Your task to perform on an android device: Open location settings Image 0: 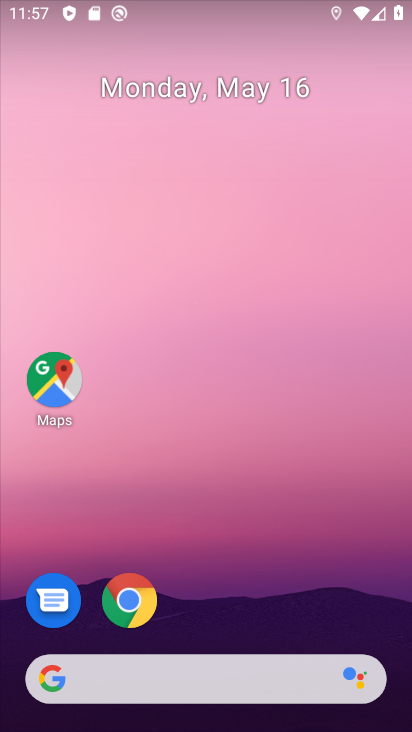
Step 0: drag from (240, 636) to (255, 200)
Your task to perform on an android device: Open location settings Image 1: 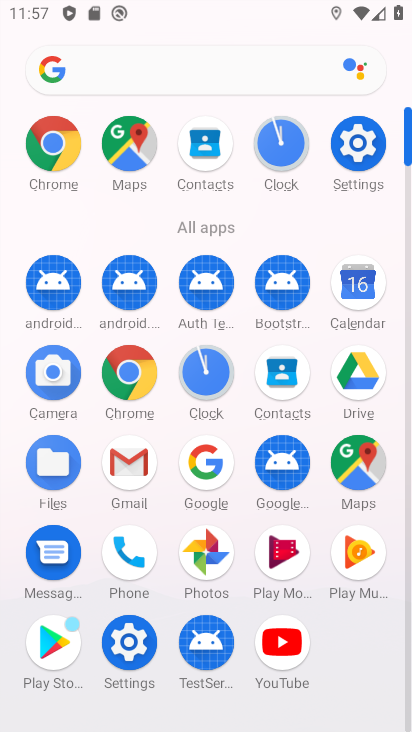
Step 1: click (364, 166)
Your task to perform on an android device: Open location settings Image 2: 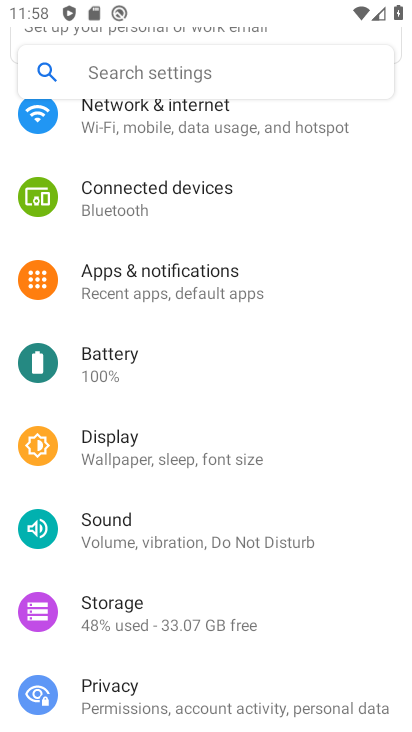
Step 2: drag from (298, 628) to (272, 201)
Your task to perform on an android device: Open location settings Image 3: 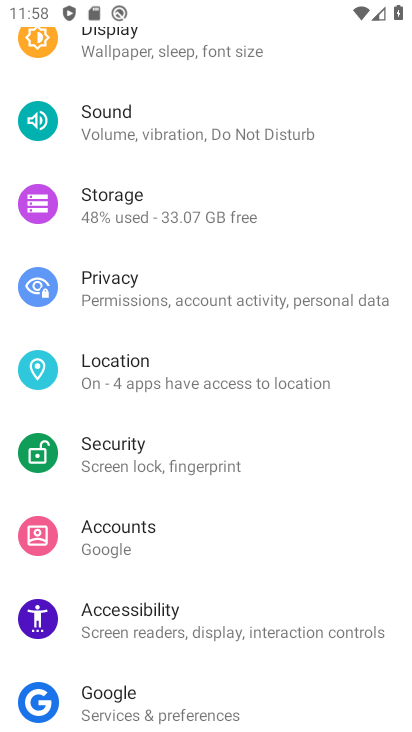
Step 3: drag from (291, 620) to (297, 448)
Your task to perform on an android device: Open location settings Image 4: 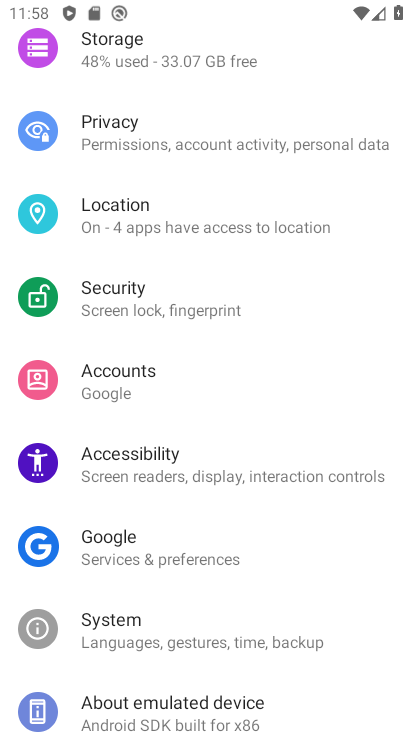
Step 4: click (292, 232)
Your task to perform on an android device: Open location settings Image 5: 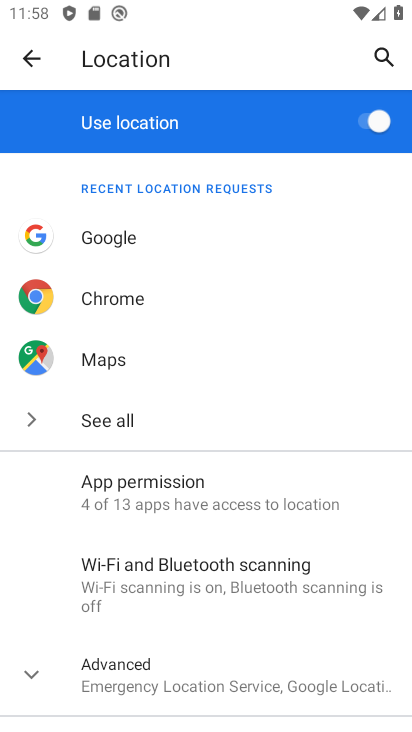
Step 5: task complete